Your task to perform on an android device: Open accessibility settings Image 0: 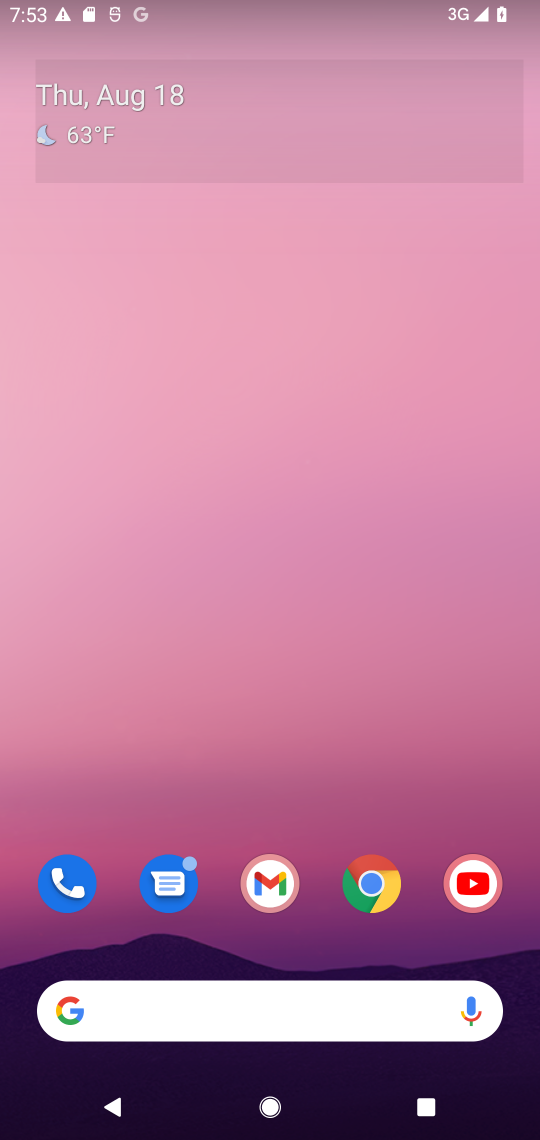
Step 0: drag from (47, 1096) to (272, 411)
Your task to perform on an android device: Open accessibility settings Image 1: 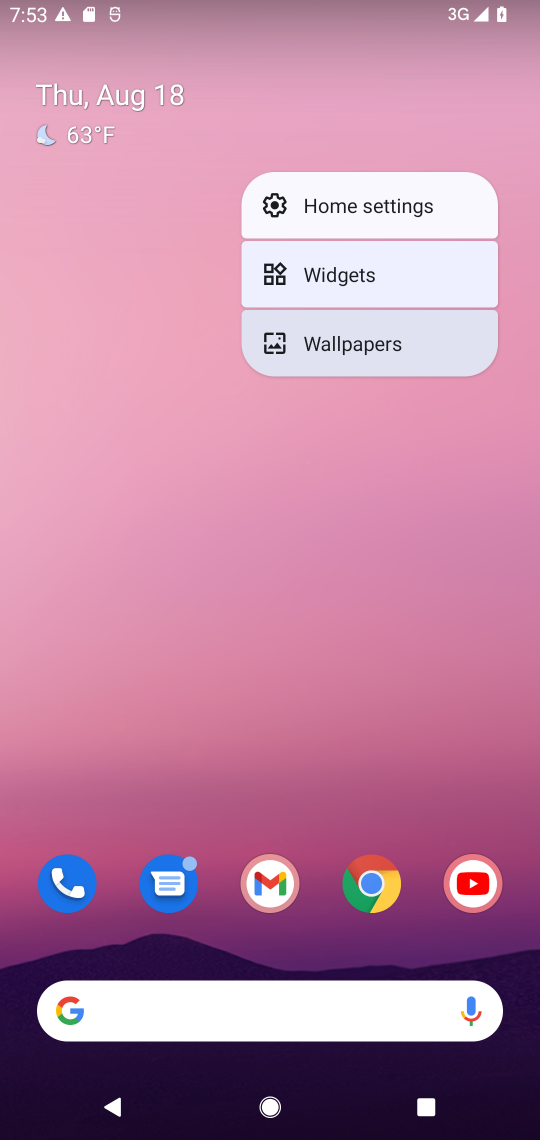
Step 1: drag from (74, 1083) to (298, 20)
Your task to perform on an android device: Open accessibility settings Image 2: 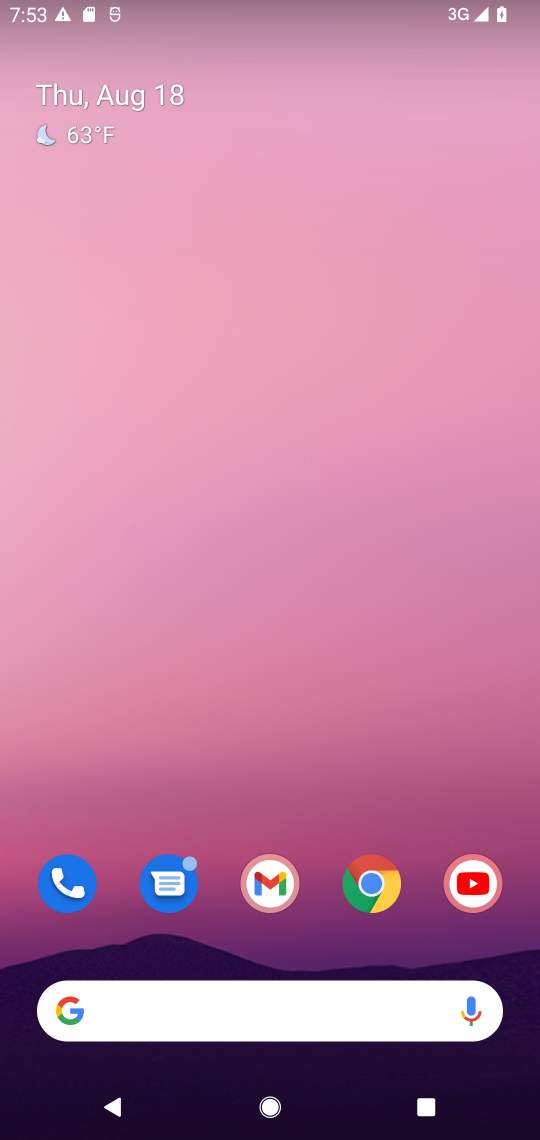
Step 2: drag from (40, 1083) to (257, 232)
Your task to perform on an android device: Open accessibility settings Image 3: 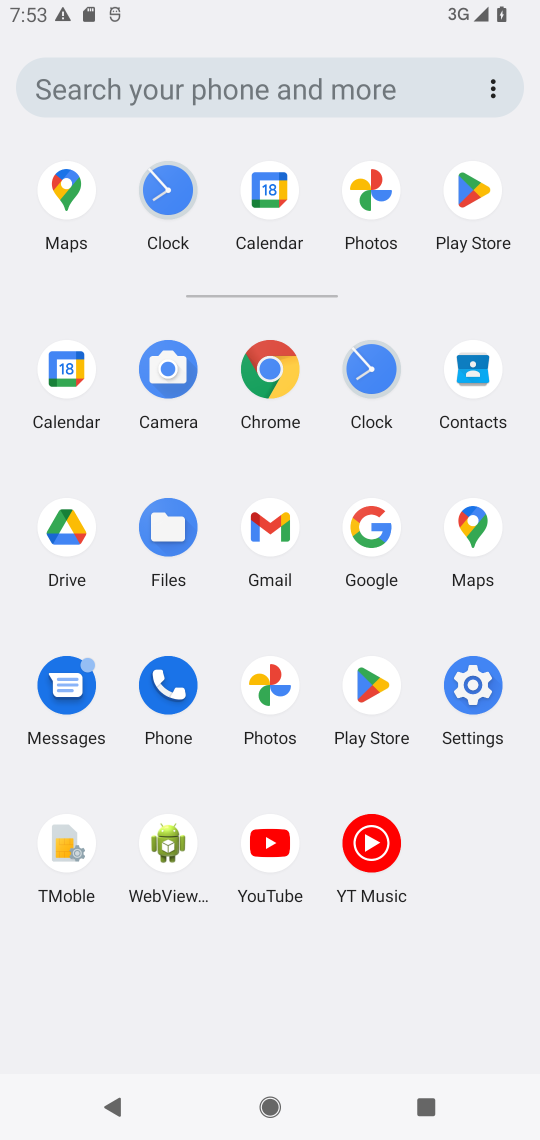
Step 3: click (459, 713)
Your task to perform on an android device: Open accessibility settings Image 4: 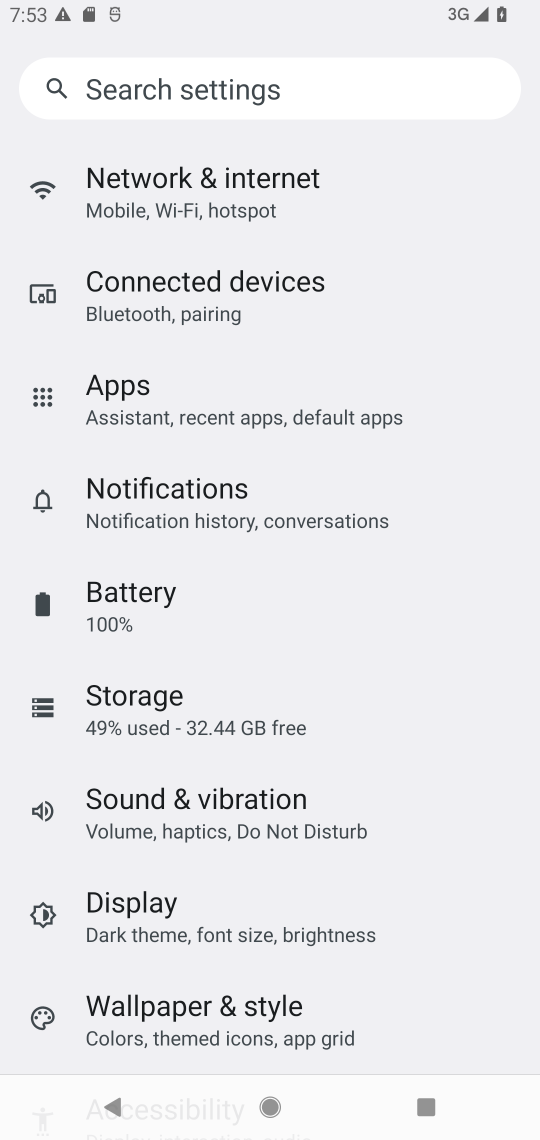
Step 4: drag from (443, 933) to (398, 263)
Your task to perform on an android device: Open accessibility settings Image 5: 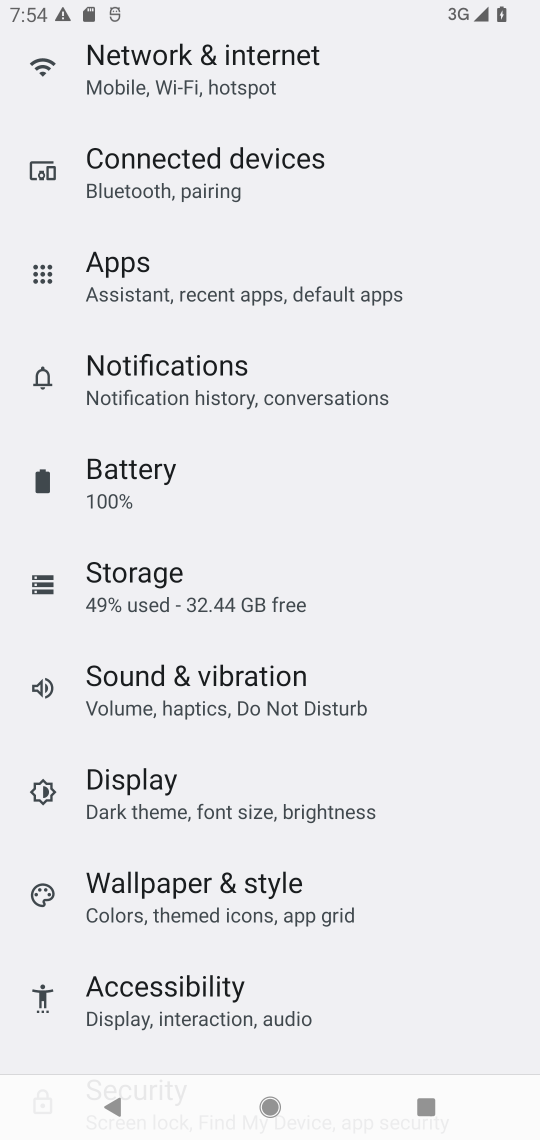
Step 5: click (222, 984)
Your task to perform on an android device: Open accessibility settings Image 6: 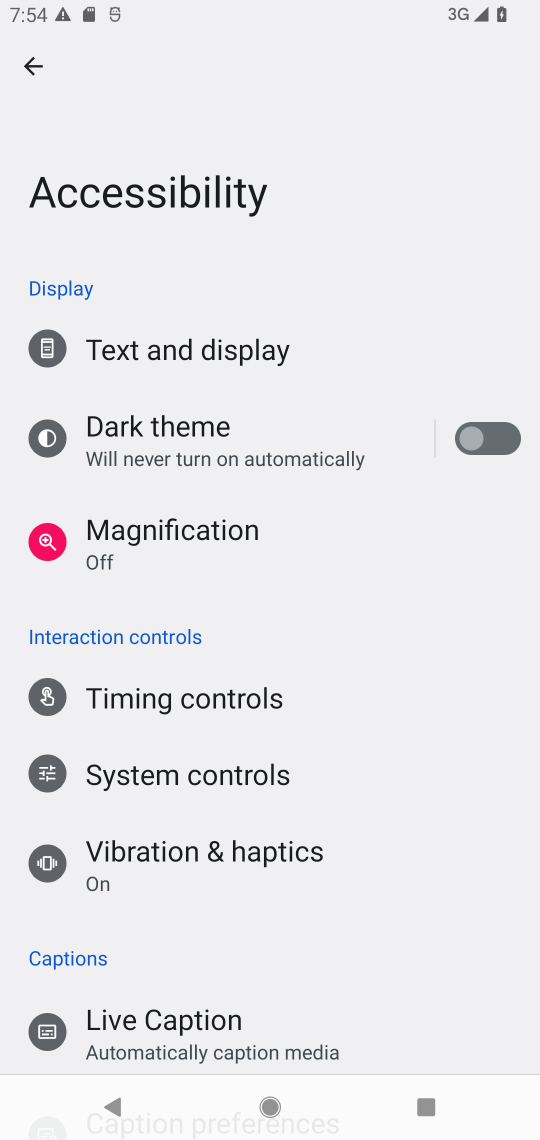
Step 6: task complete